Your task to perform on an android device: turn on location history Image 0: 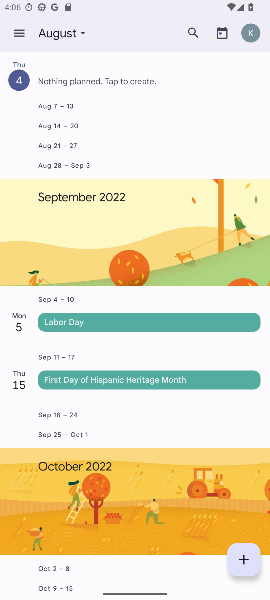
Step 0: drag from (160, 487) to (194, 219)
Your task to perform on an android device: turn on location history Image 1: 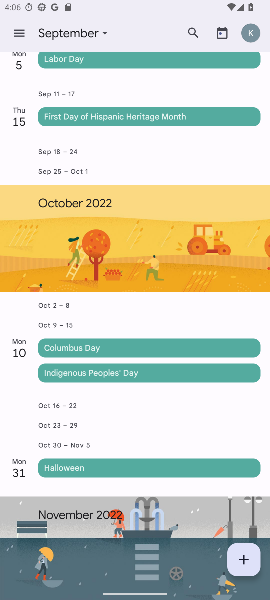
Step 1: press home button
Your task to perform on an android device: turn on location history Image 2: 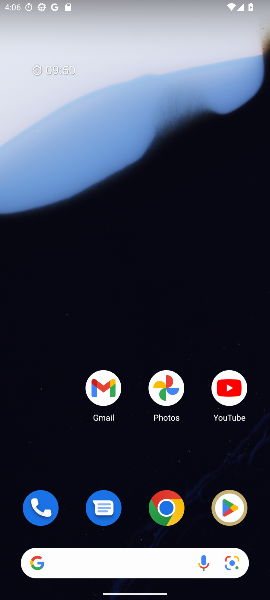
Step 2: drag from (96, 507) to (194, 206)
Your task to perform on an android device: turn on location history Image 3: 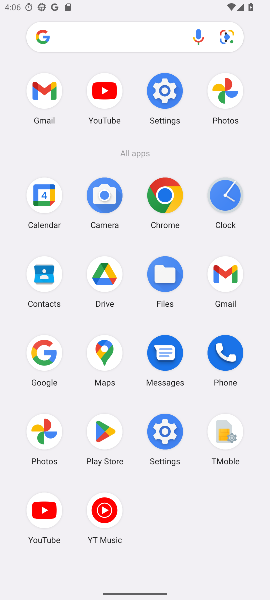
Step 3: click (178, 437)
Your task to perform on an android device: turn on location history Image 4: 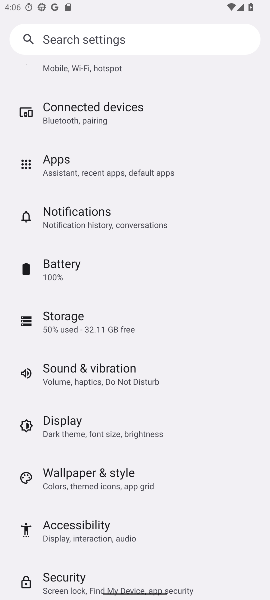
Step 4: drag from (111, 538) to (176, 164)
Your task to perform on an android device: turn on location history Image 5: 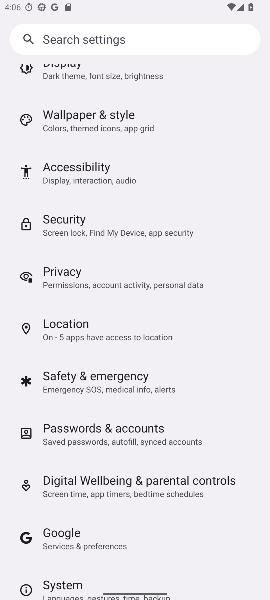
Step 5: click (127, 333)
Your task to perform on an android device: turn on location history Image 6: 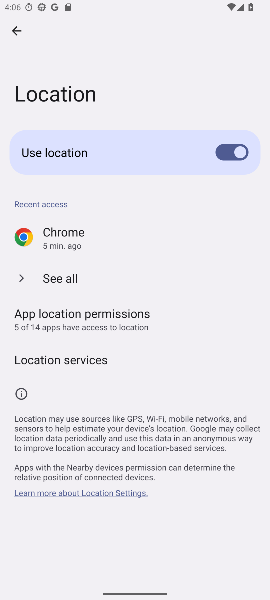
Step 6: click (58, 367)
Your task to perform on an android device: turn on location history Image 7: 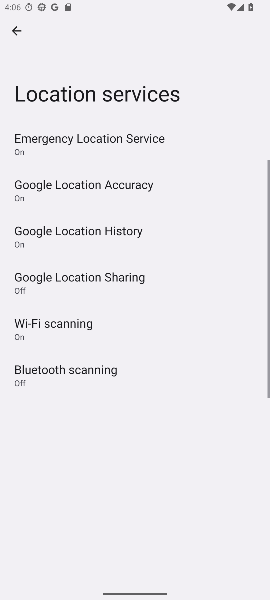
Step 7: click (118, 234)
Your task to perform on an android device: turn on location history Image 8: 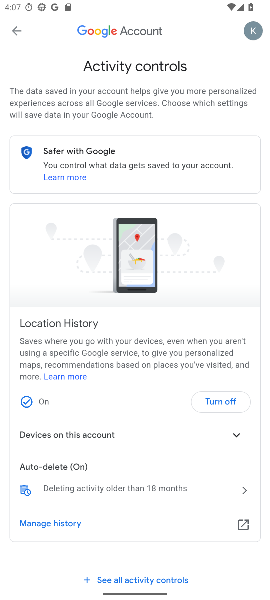
Step 8: task complete